Your task to perform on an android device: change keyboard looks Image 0: 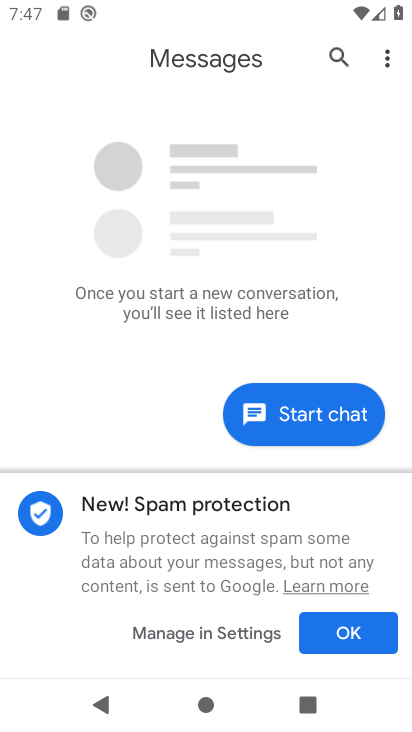
Step 0: press home button
Your task to perform on an android device: change keyboard looks Image 1: 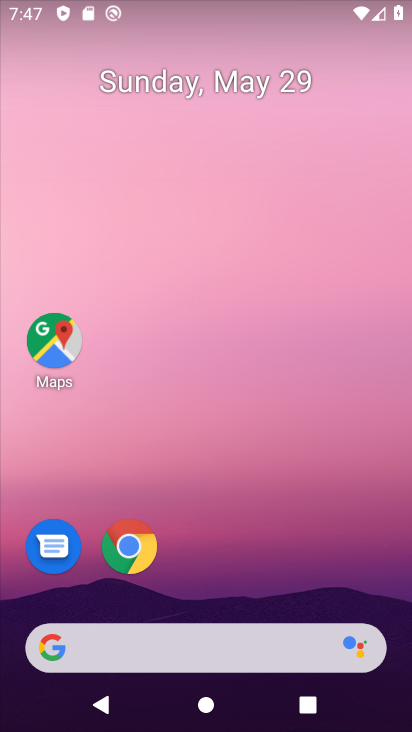
Step 1: drag from (266, 581) to (280, 35)
Your task to perform on an android device: change keyboard looks Image 2: 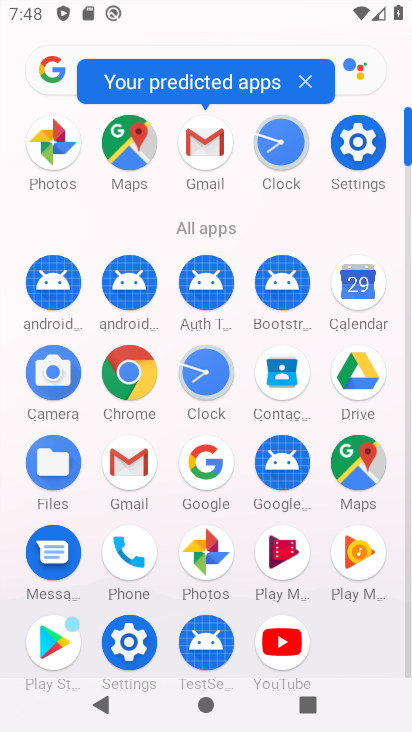
Step 2: click (372, 136)
Your task to perform on an android device: change keyboard looks Image 3: 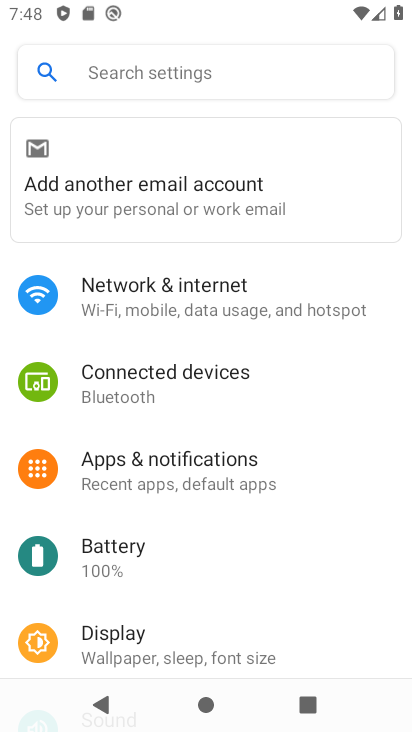
Step 3: drag from (225, 620) to (208, 98)
Your task to perform on an android device: change keyboard looks Image 4: 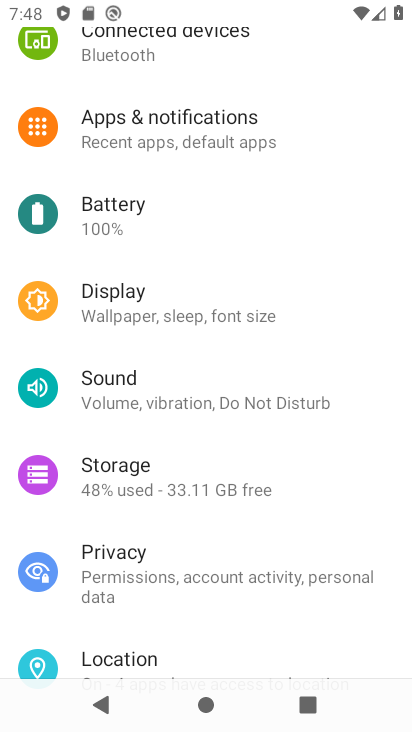
Step 4: drag from (194, 608) to (212, 162)
Your task to perform on an android device: change keyboard looks Image 5: 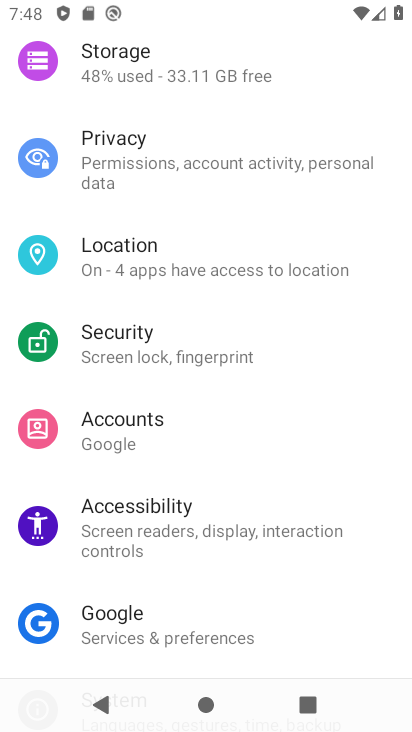
Step 5: drag from (243, 623) to (237, 240)
Your task to perform on an android device: change keyboard looks Image 6: 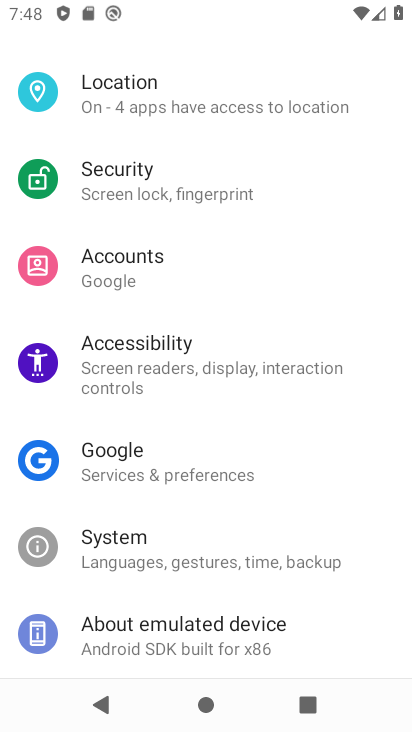
Step 6: click (241, 575)
Your task to perform on an android device: change keyboard looks Image 7: 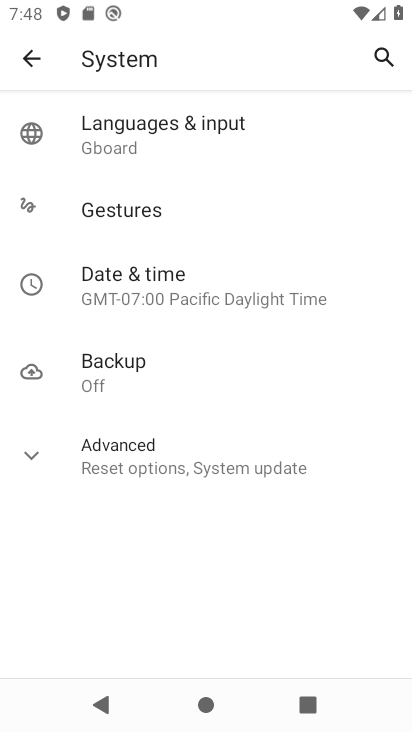
Step 7: click (279, 143)
Your task to perform on an android device: change keyboard looks Image 8: 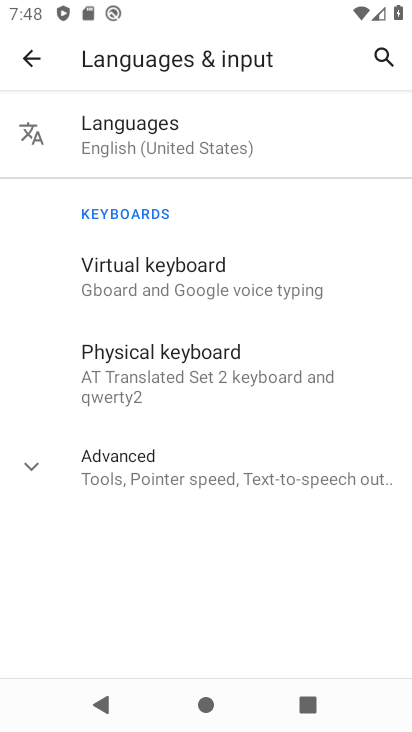
Step 8: click (244, 226)
Your task to perform on an android device: change keyboard looks Image 9: 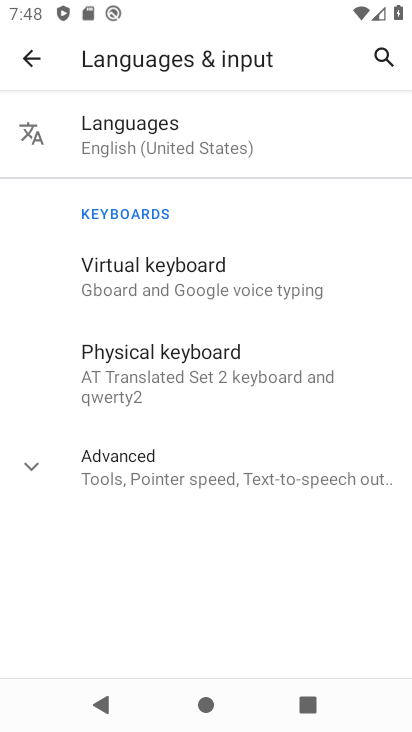
Step 9: click (237, 268)
Your task to perform on an android device: change keyboard looks Image 10: 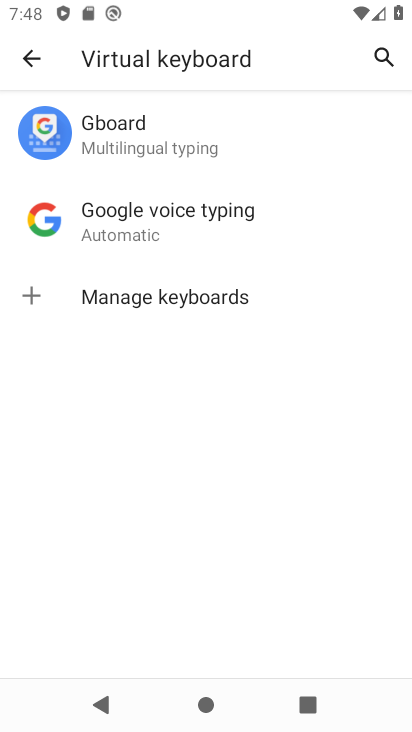
Step 10: click (255, 150)
Your task to perform on an android device: change keyboard looks Image 11: 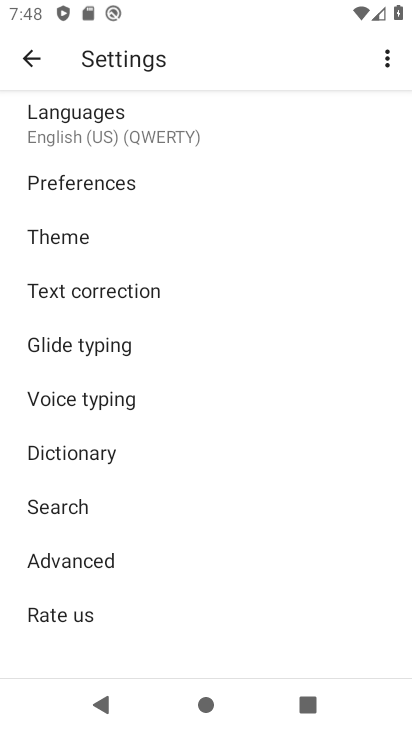
Step 11: click (191, 220)
Your task to perform on an android device: change keyboard looks Image 12: 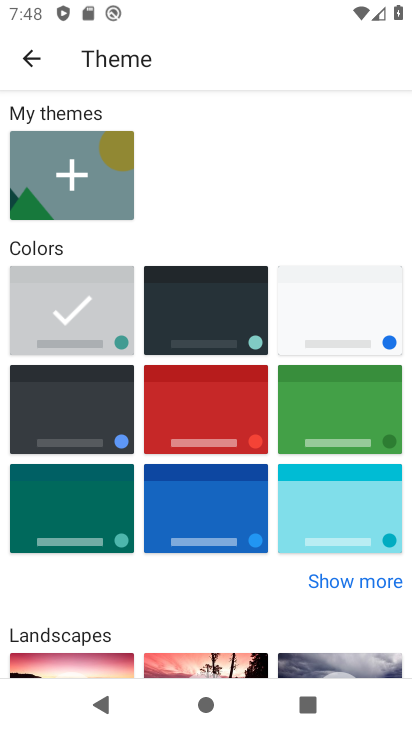
Step 12: click (193, 279)
Your task to perform on an android device: change keyboard looks Image 13: 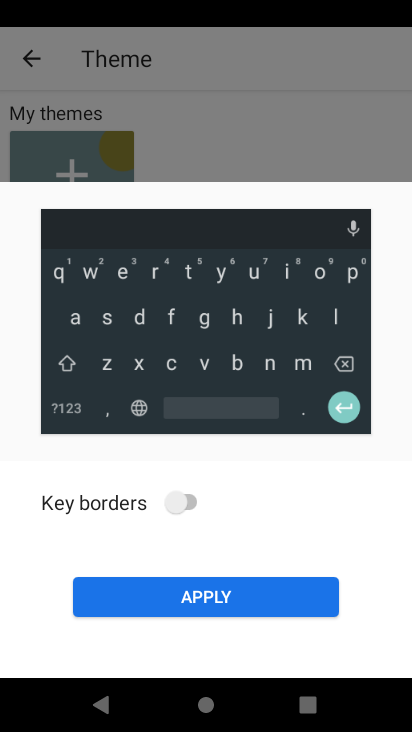
Step 13: click (186, 585)
Your task to perform on an android device: change keyboard looks Image 14: 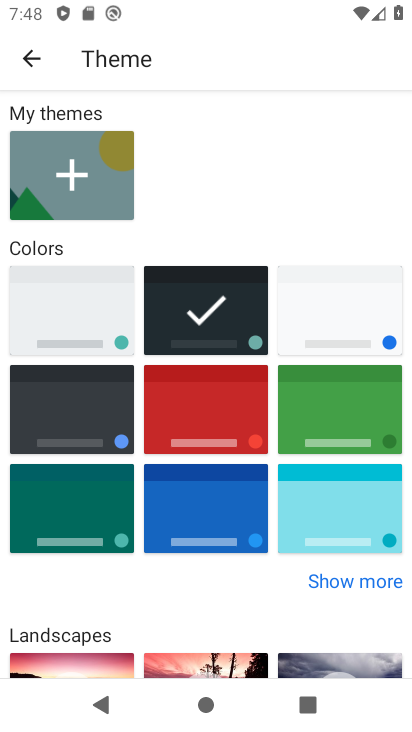
Step 14: task complete